Your task to perform on an android device: Open calendar and show me the second week of next month Image 0: 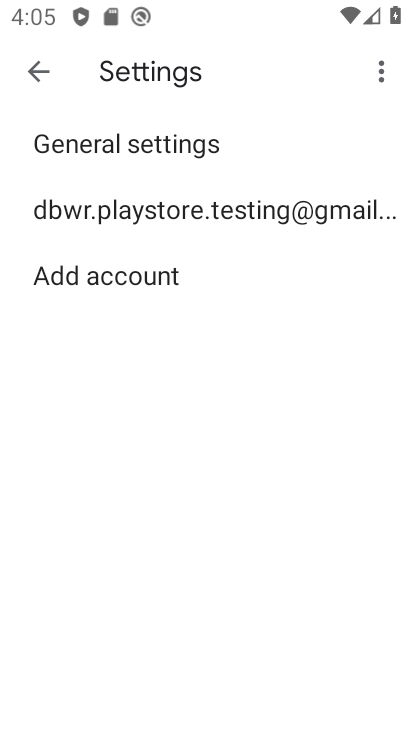
Step 0: press home button
Your task to perform on an android device: Open calendar and show me the second week of next month Image 1: 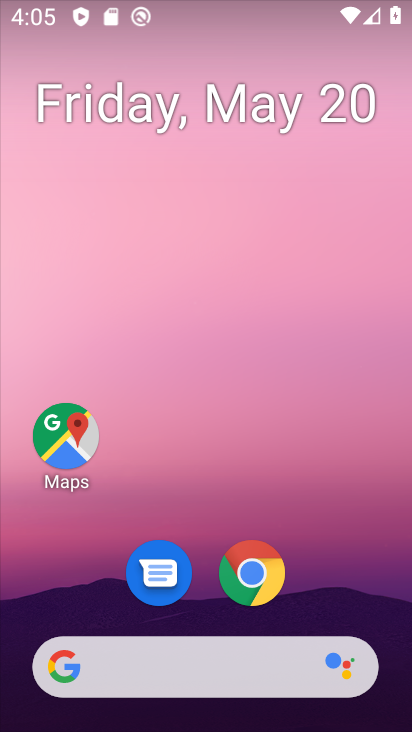
Step 1: drag from (371, 570) to (213, 16)
Your task to perform on an android device: Open calendar and show me the second week of next month Image 2: 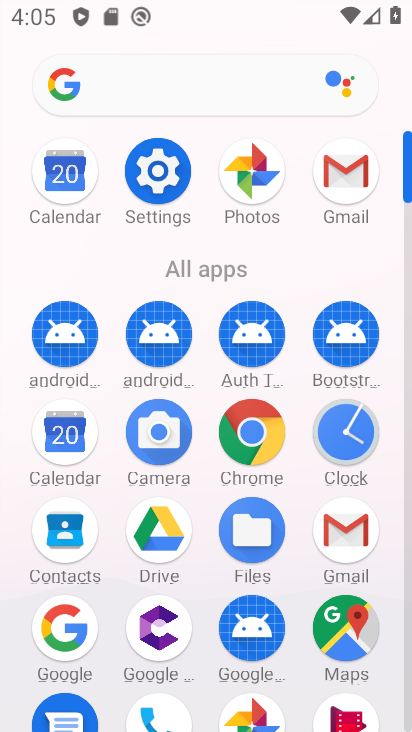
Step 2: click (59, 173)
Your task to perform on an android device: Open calendar and show me the second week of next month Image 3: 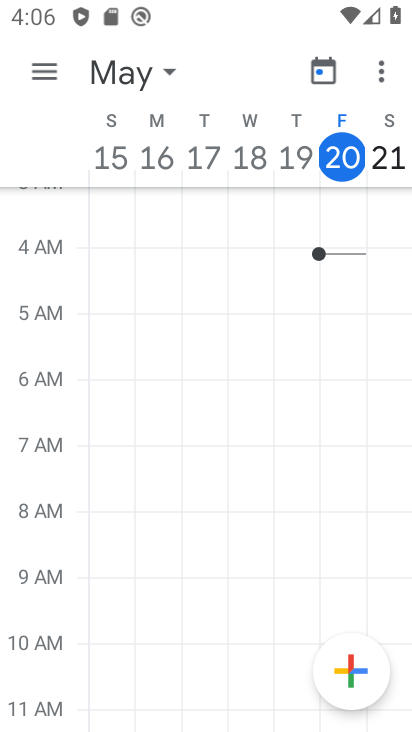
Step 3: click (108, 82)
Your task to perform on an android device: Open calendar and show me the second week of next month Image 4: 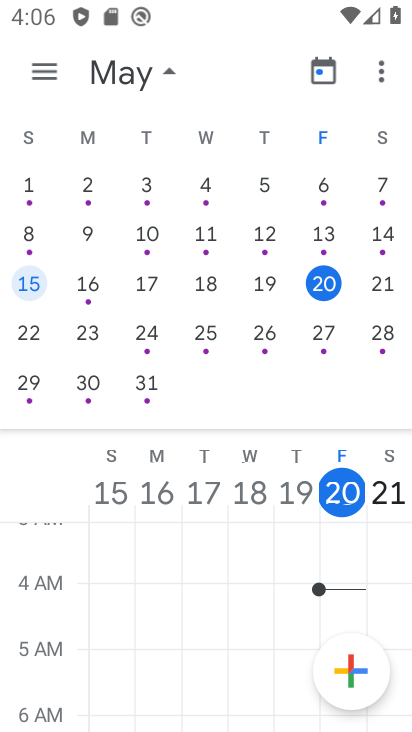
Step 4: drag from (393, 277) to (3, 296)
Your task to perform on an android device: Open calendar and show me the second week of next month Image 5: 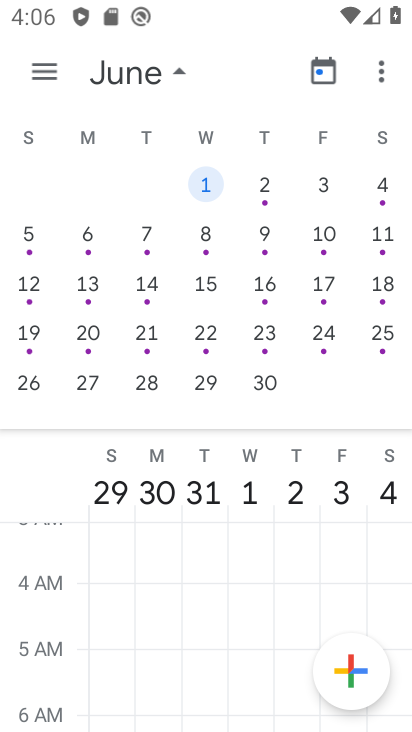
Step 5: click (148, 245)
Your task to perform on an android device: Open calendar and show me the second week of next month Image 6: 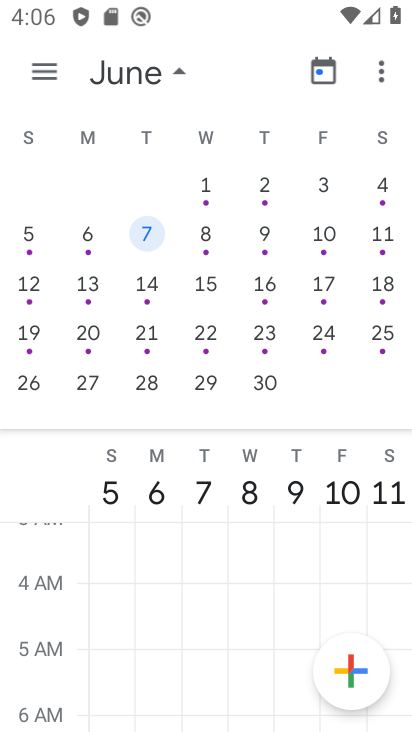
Step 6: task complete